Your task to perform on an android device: delete the emails in spam in the gmail app Image 0: 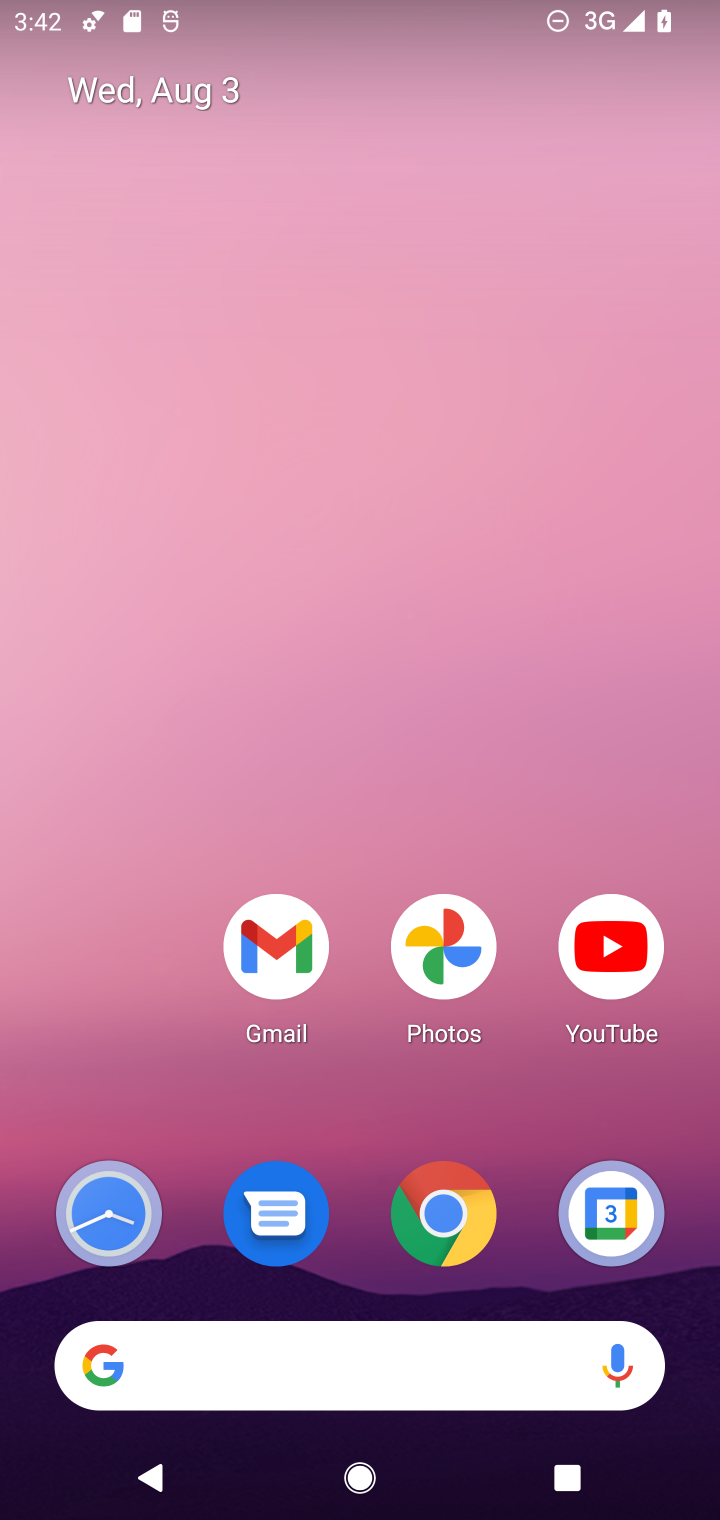
Step 0: drag from (304, 1311) to (323, 243)
Your task to perform on an android device: delete the emails in spam in the gmail app Image 1: 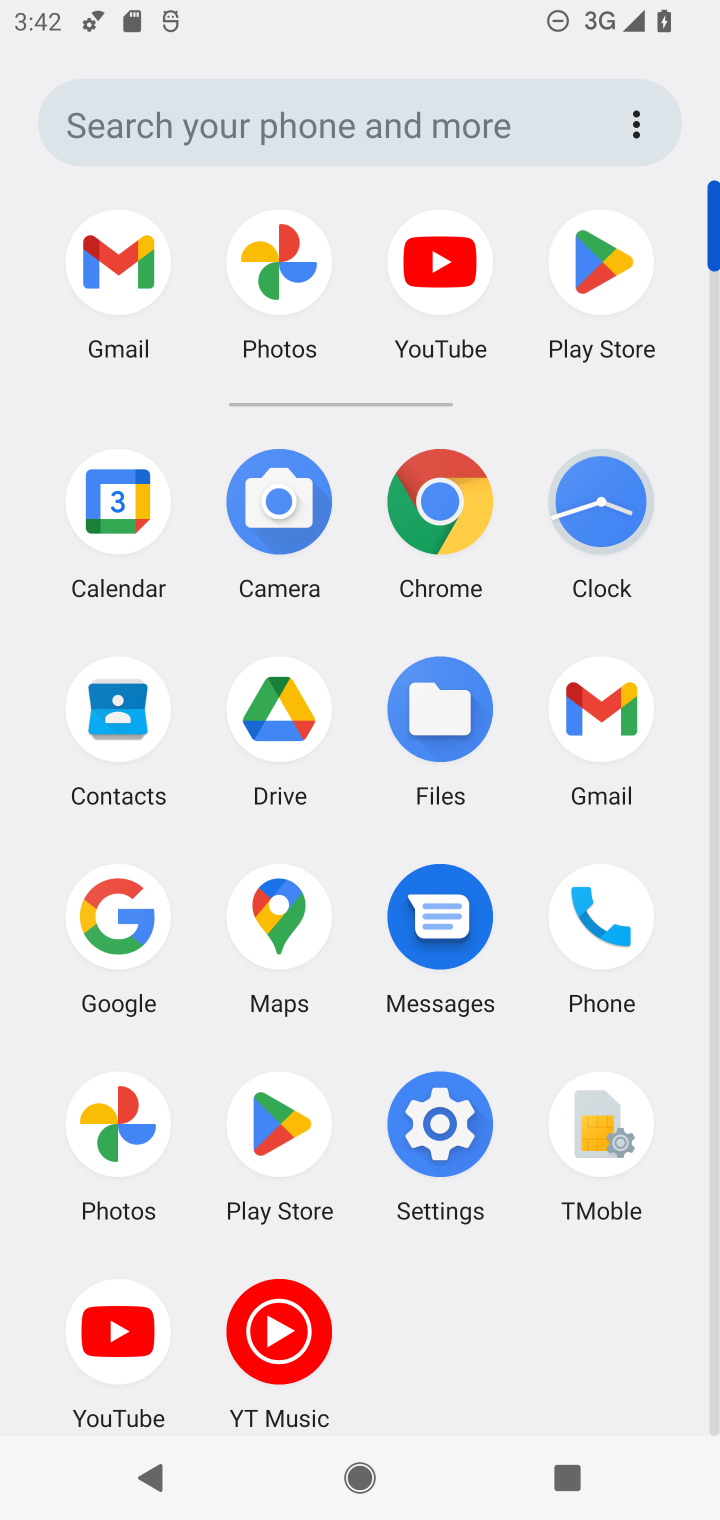
Step 1: drag from (132, 900) to (580, 411)
Your task to perform on an android device: delete the emails in spam in the gmail app Image 2: 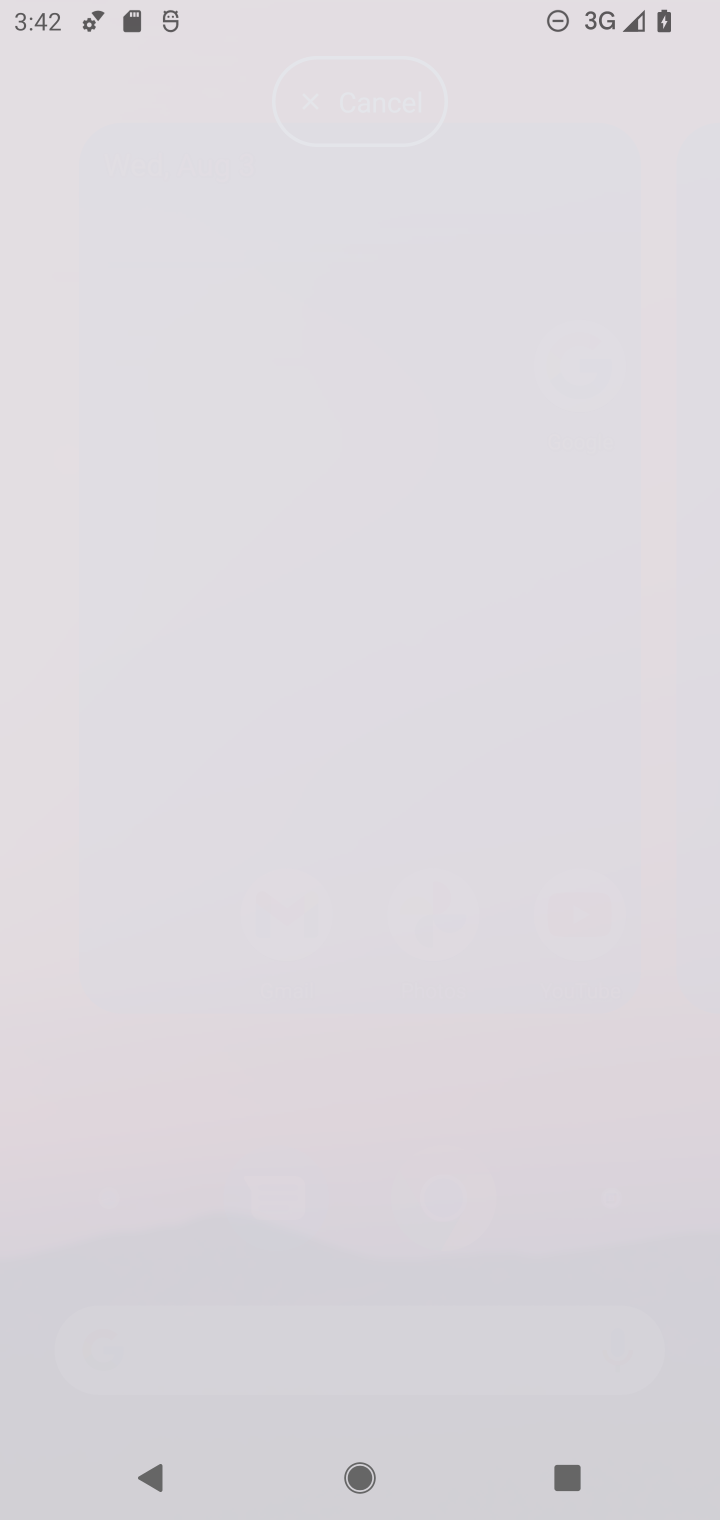
Step 2: click (453, 1281)
Your task to perform on an android device: delete the emails in spam in the gmail app Image 3: 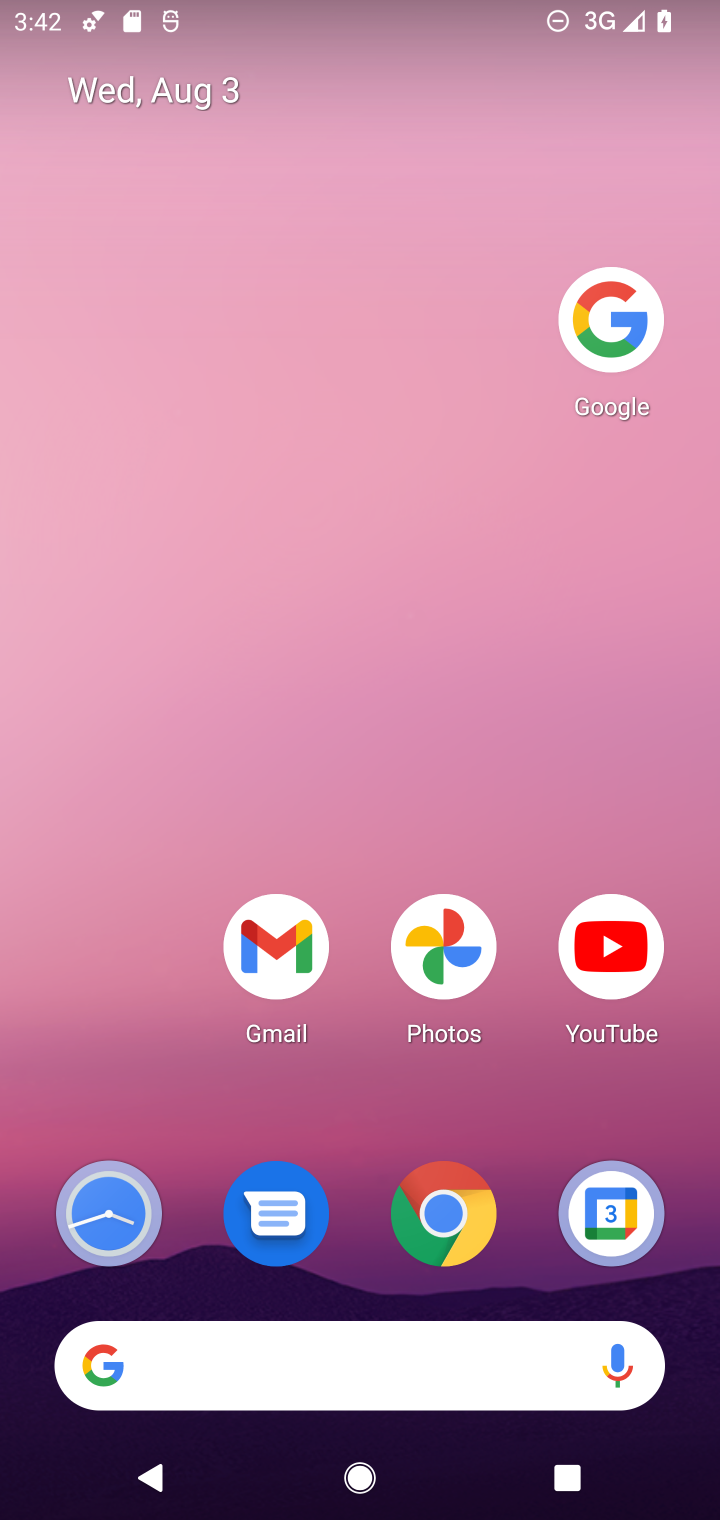
Step 3: click (278, 932)
Your task to perform on an android device: delete the emails in spam in the gmail app Image 4: 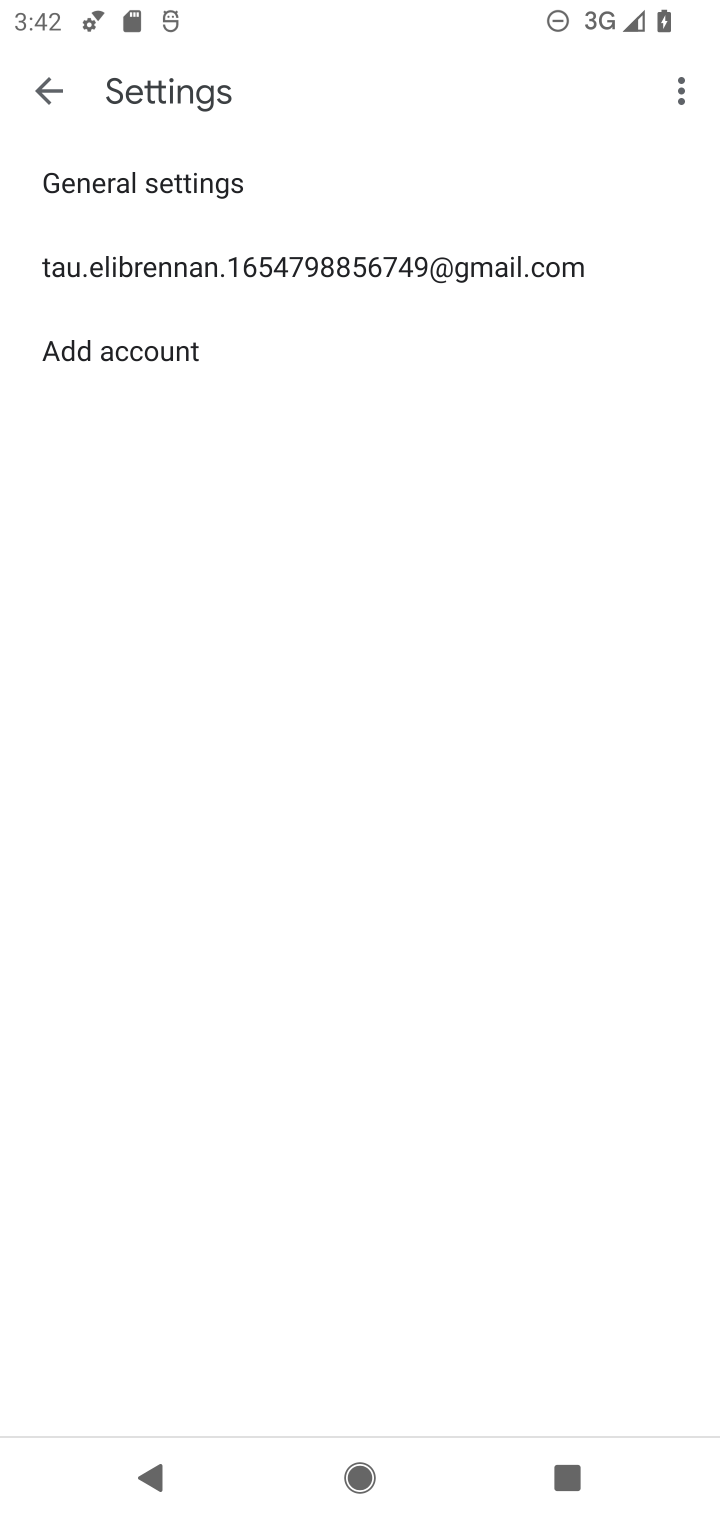
Step 4: click (167, 259)
Your task to perform on an android device: delete the emails in spam in the gmail app Image 5: 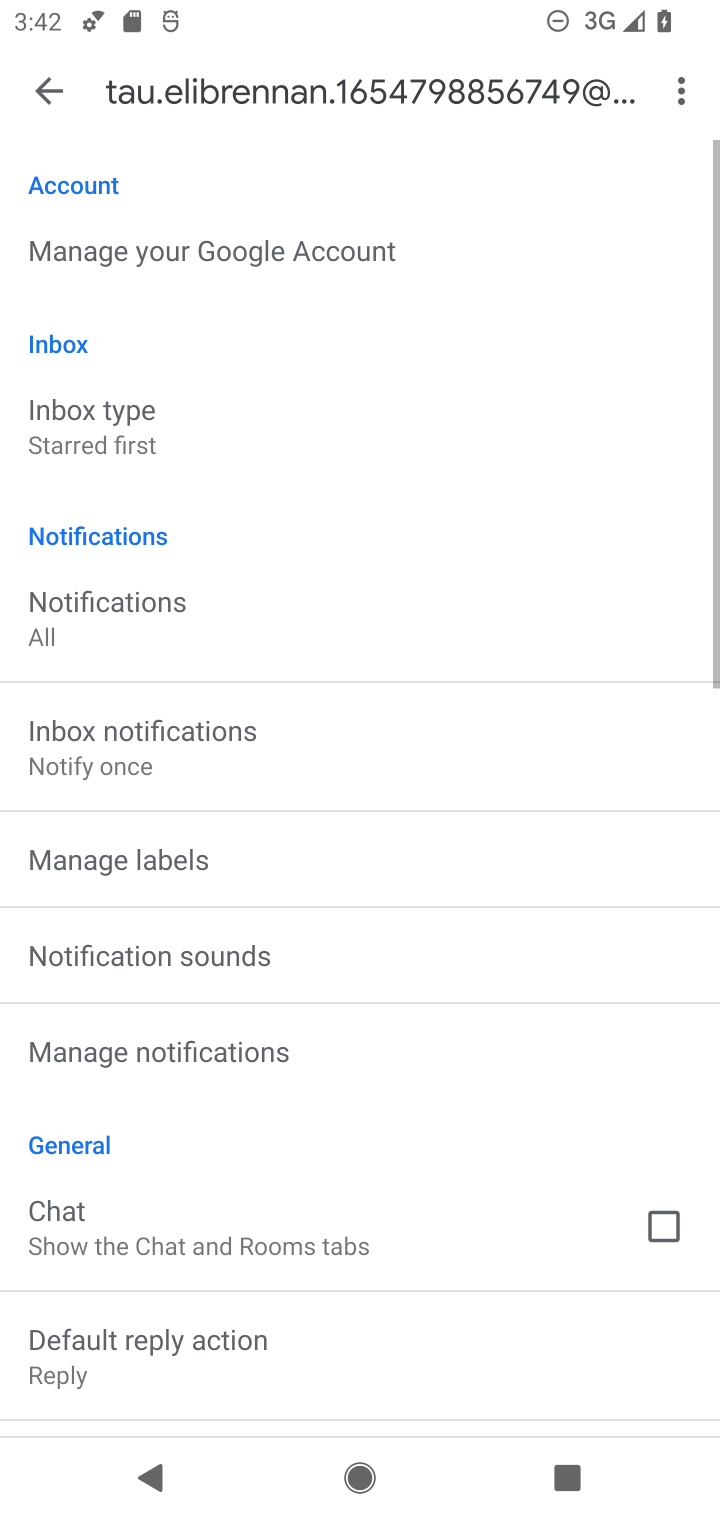
Step 5: click (36, 81)
Your task to perform on an android device: delete the emails in spam in the gmail app Image 6: 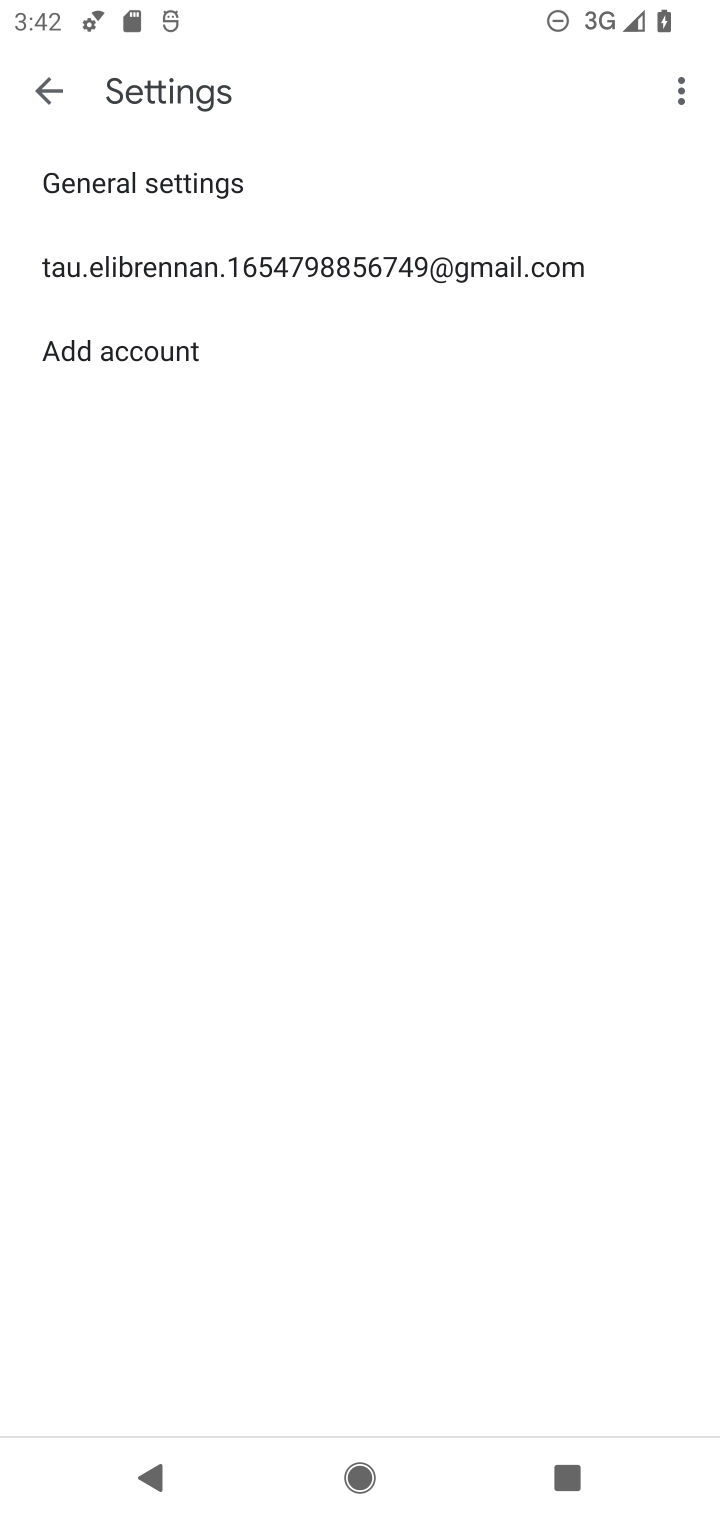
Step 6: click (36, 81)
Your task to perform on an android device: delete the emails in spam in the gmail app Image 7: 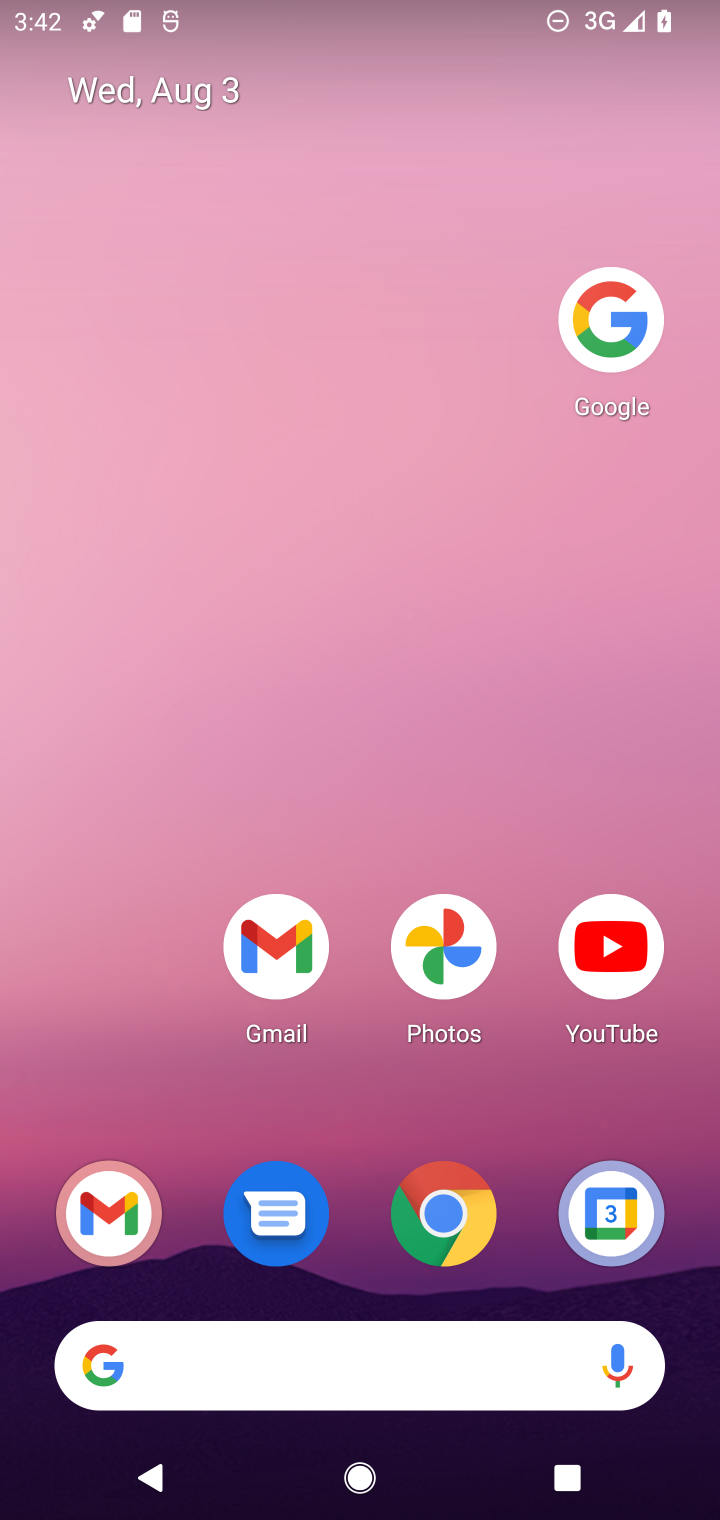
Step 7: click (280, 942)
Your task to perform on an android device: delete the emails in spam in the gmail app Image 8: 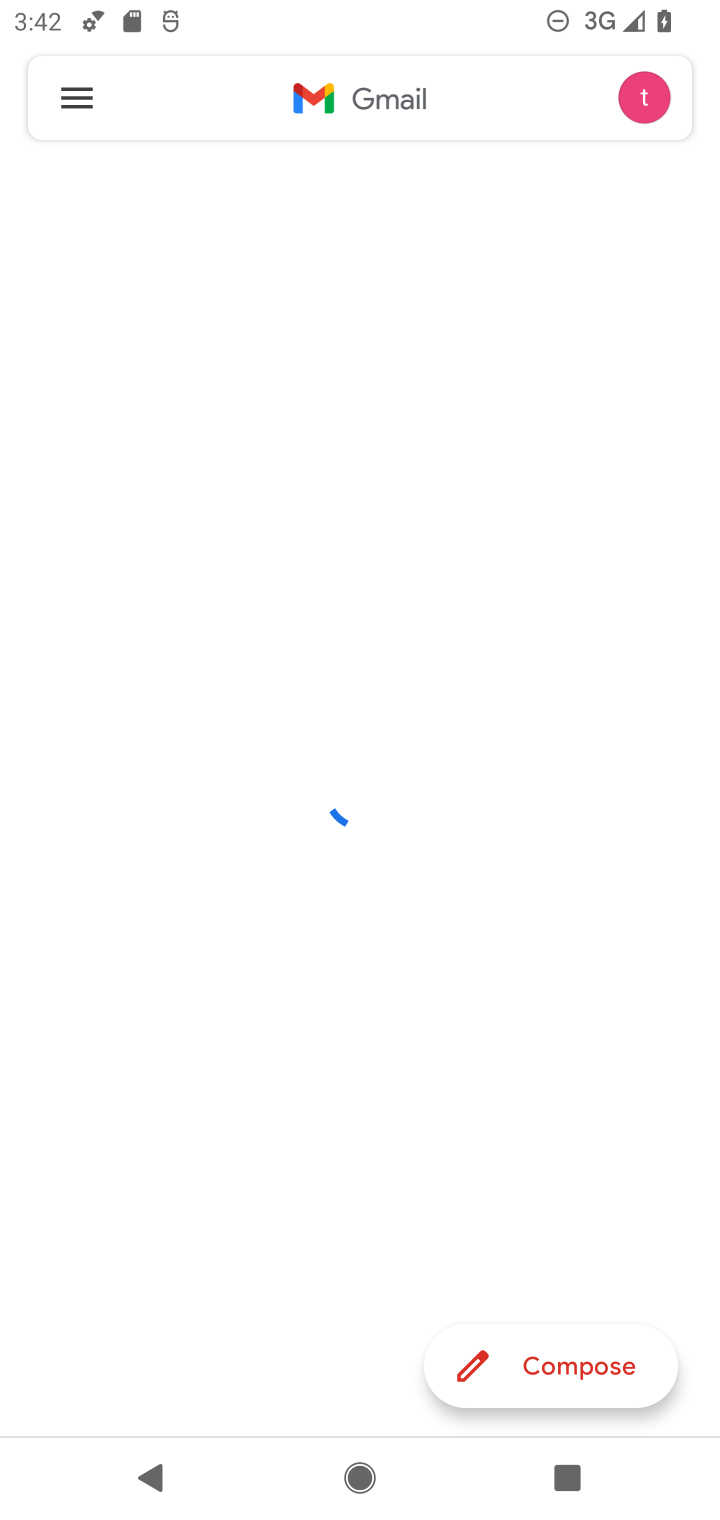
Step 8: click (66, 90)
Your task to perform on an android device: delete the emails in spam in the gmail app Image 9: 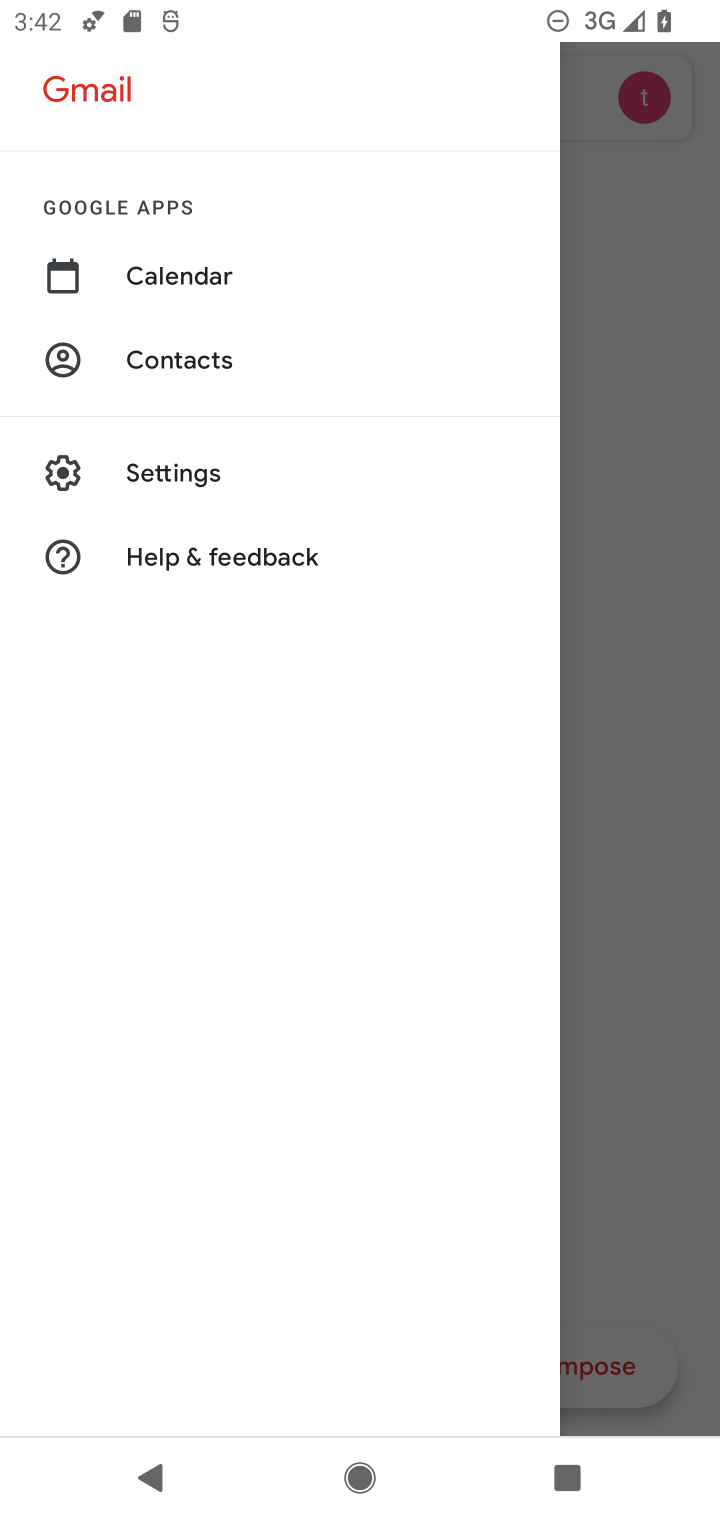
Step 9: click (613, 484)
Your task to perform on an android device: delete the emails in spam in the gmail app Image 10: 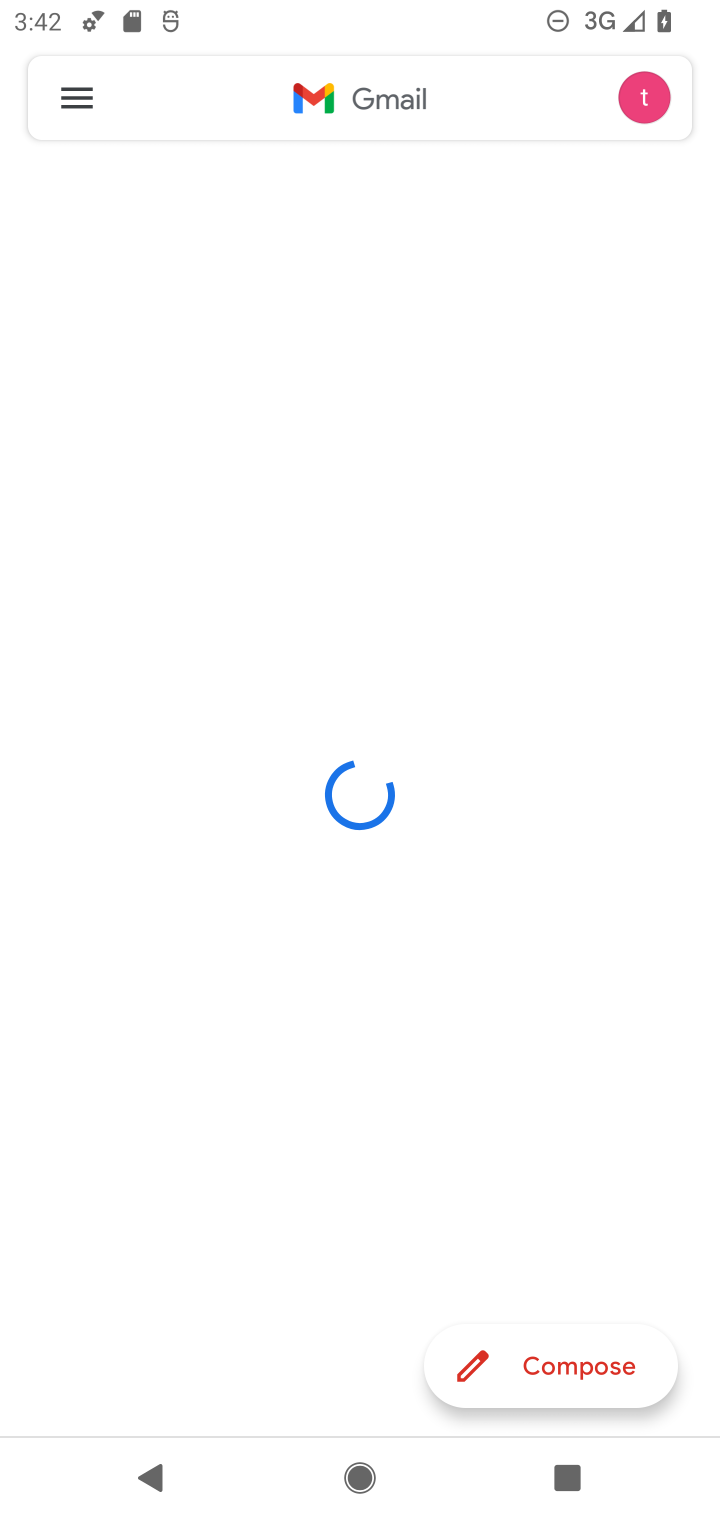
Step 10: click (63, 111)
Your task to perform on an android device: delete the emails in spam in the gmail app Image 11: 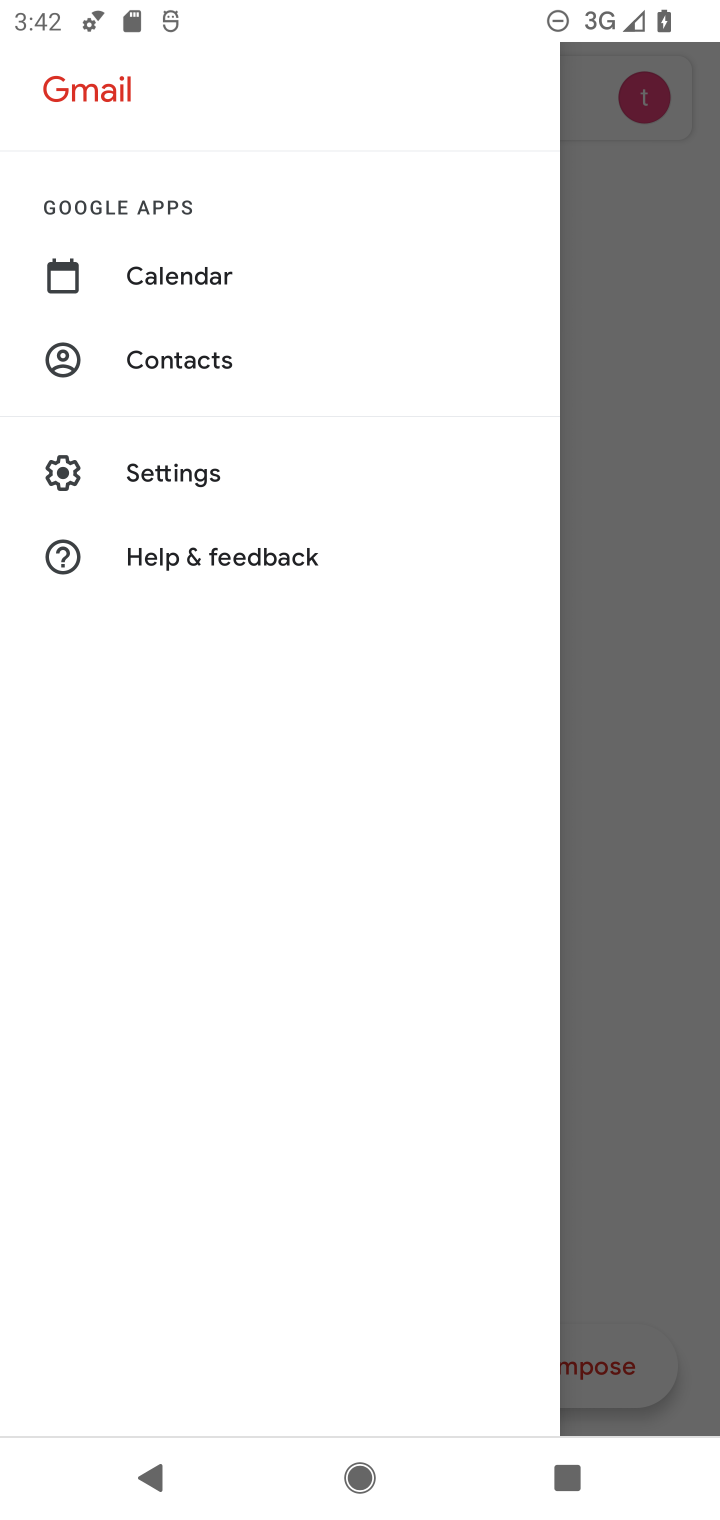
Step 11: click (145, 90)
Your task to perform on an android device: delete the emails in spam in the gmail app Image 12: 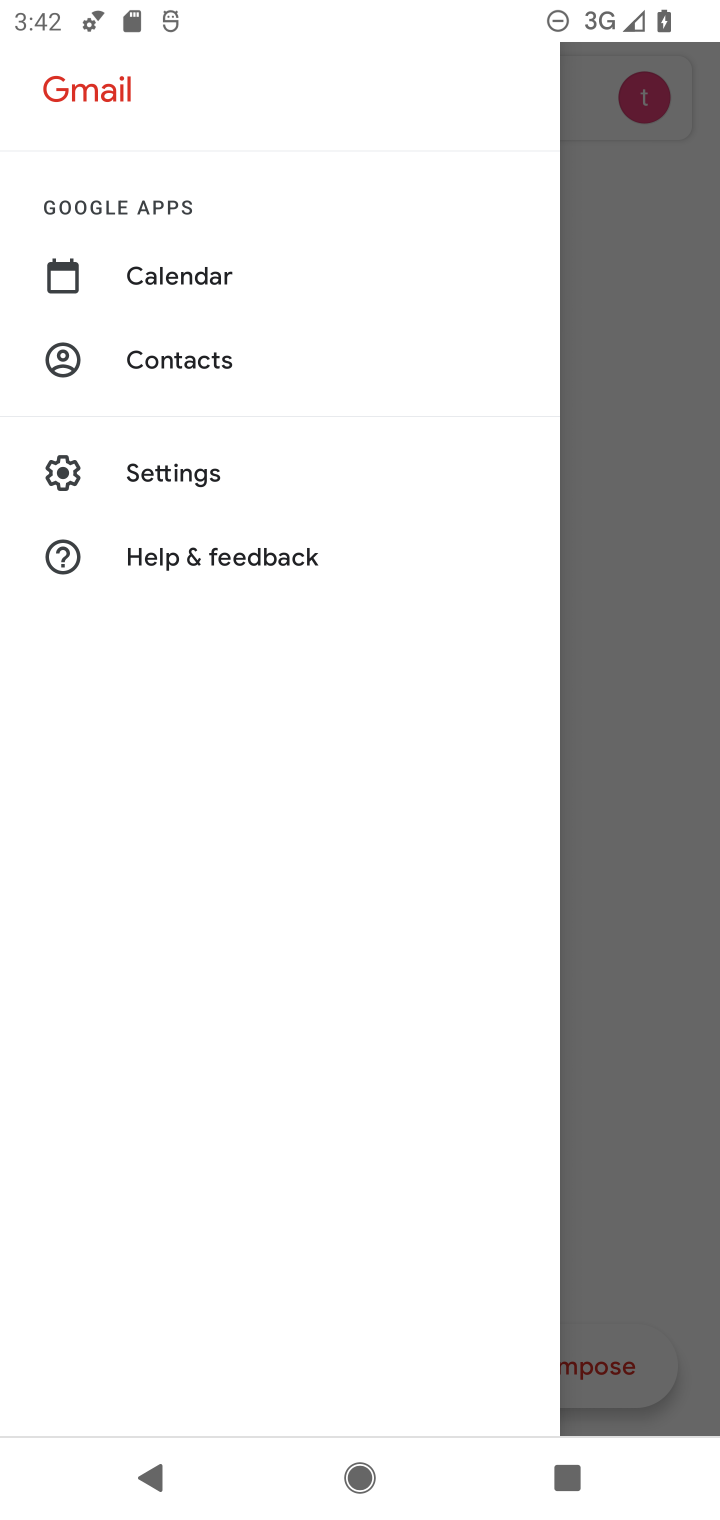
Step 12: click (691, 408)
Your task to perform on an android device: delete the emails in spam in the gmail app Image 13: 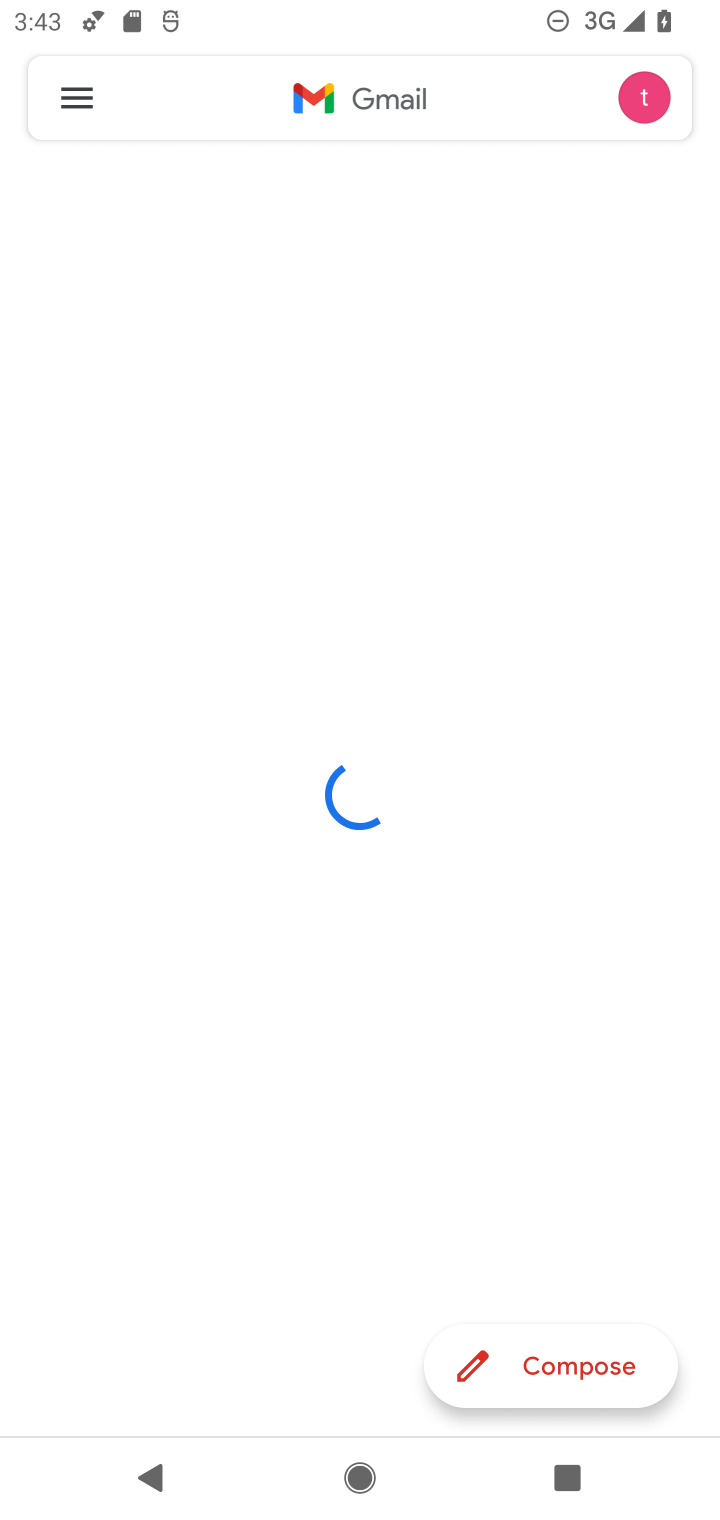
Step 13: click (67, 91)
Your task to perform on an android device: delete the emails in spam in the gmail app Image 14: 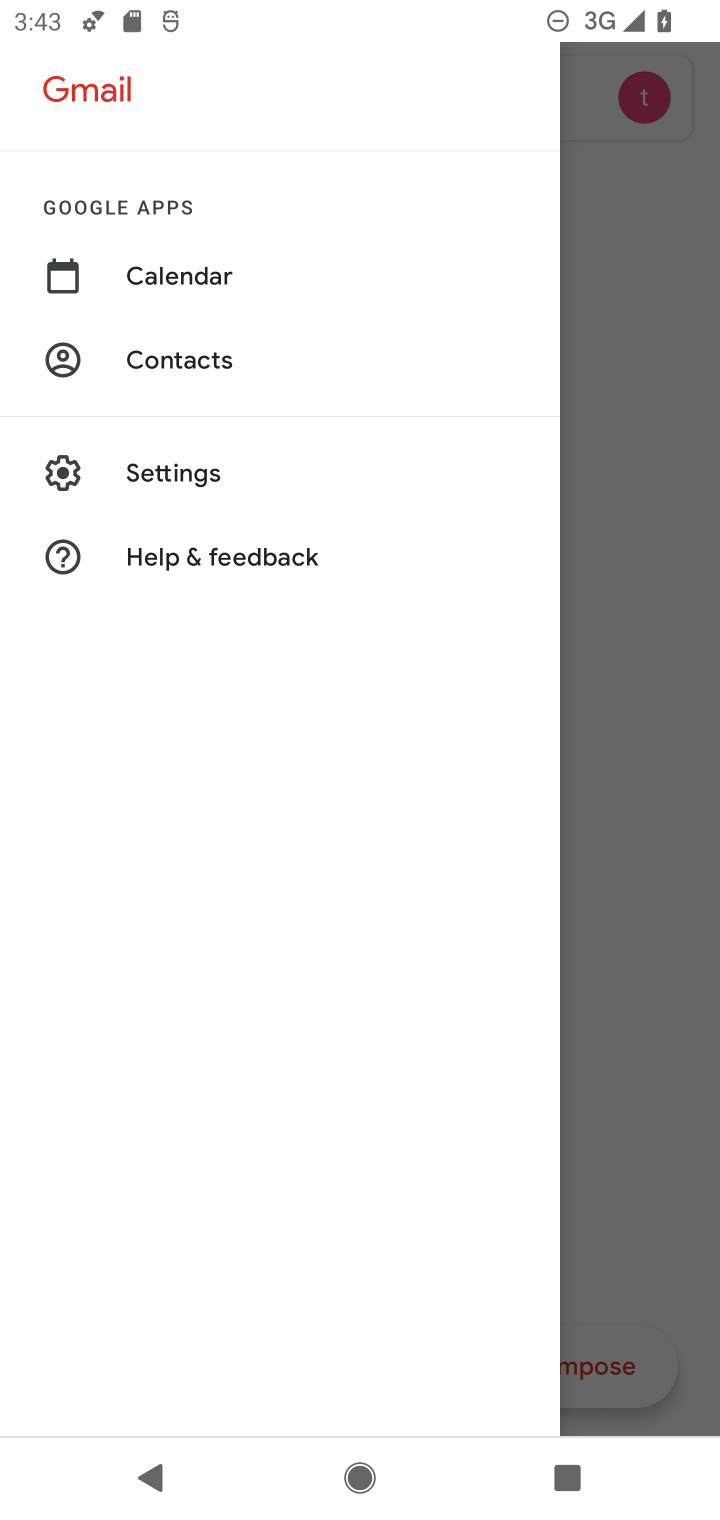
Step 14: click (698, 444)
Your task to perform on an android device: delete the emails in spam in the gmail app Image 15: 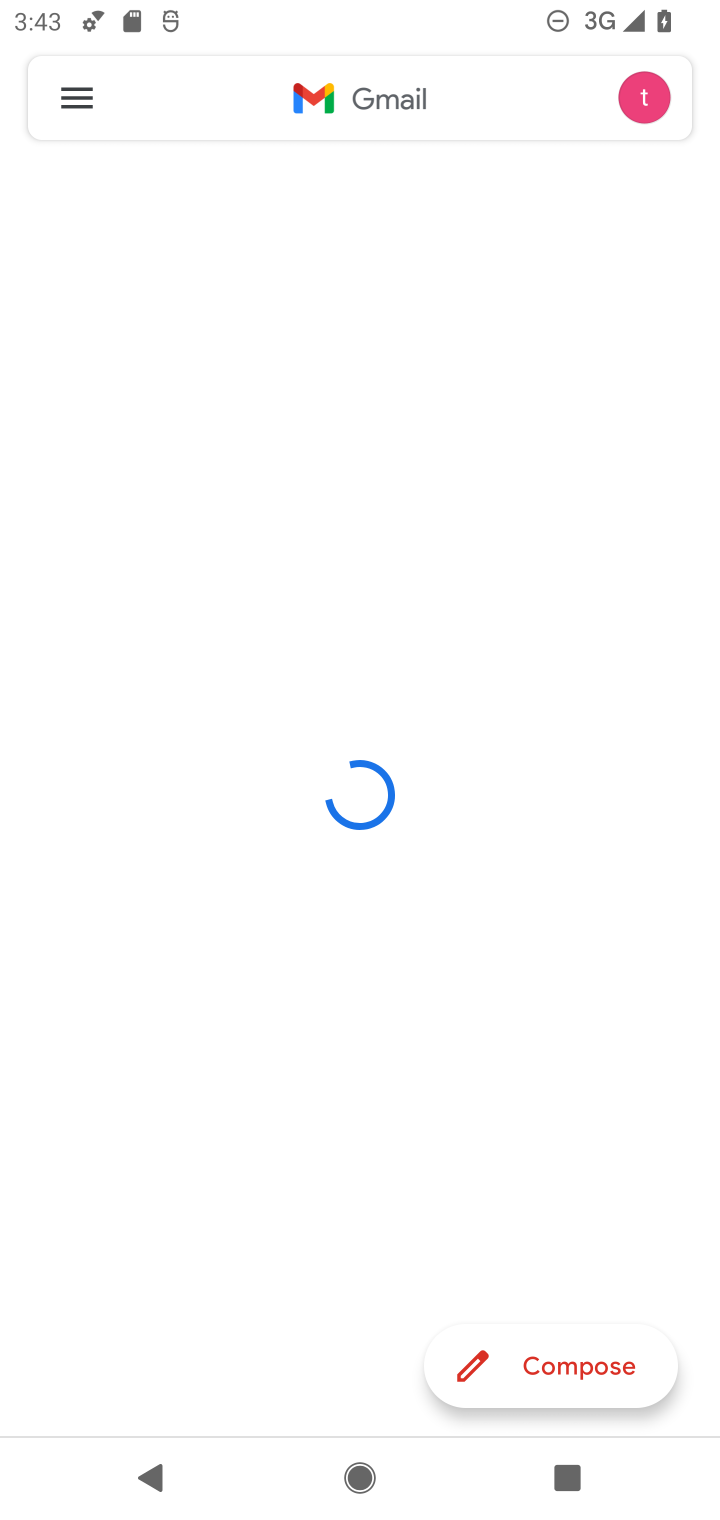
Step 15: task complete